Your task to perform on an android device: open app "Google Play Music" Image 0: 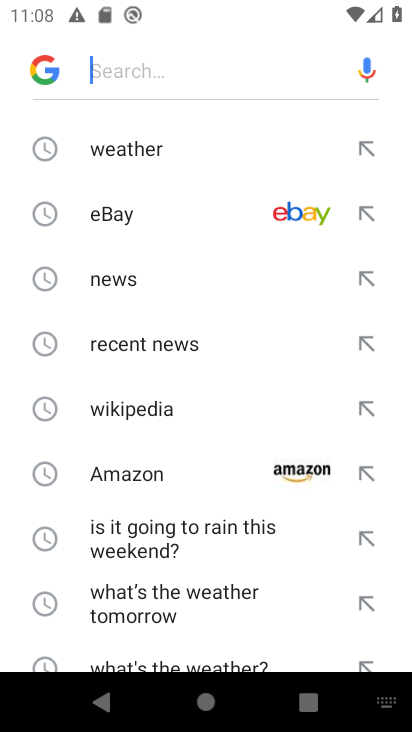
Step 0: press back button
Your task to perform on an android device: open app "Google Play Music" Image 1: 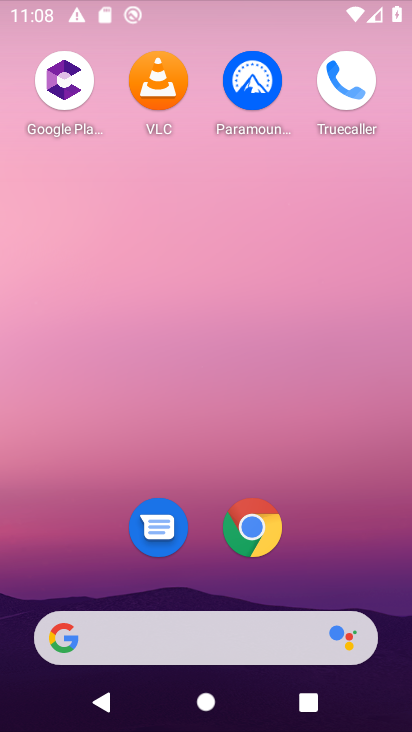
Step 1: drag from (191, 597) to (301, 32)
Your task to perform on an android device: open app "Google Play Music" Image 2: 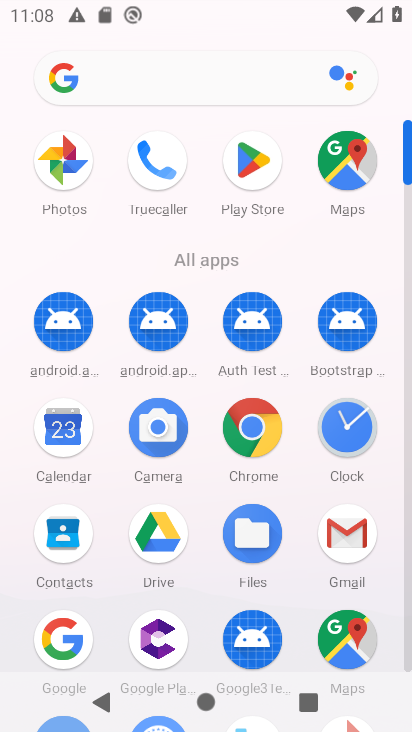
Step 2: click (250, 147)
Your task to perform on an android device: open app "Google Play Music" Image 3: 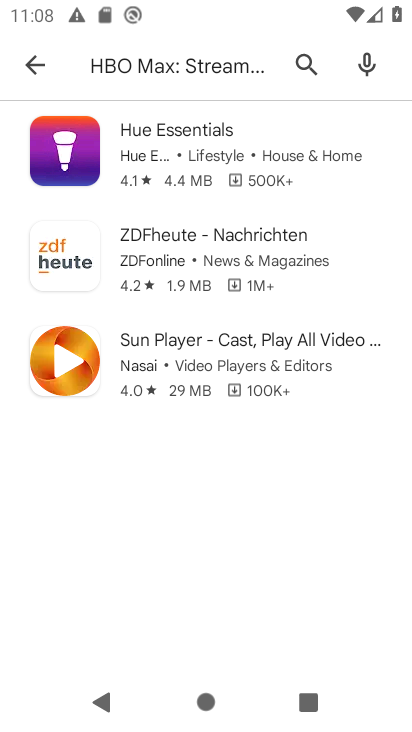
Step 3: click (303, 61)
Your task to perform on an android device: open app "Google Play Music" Image 4: 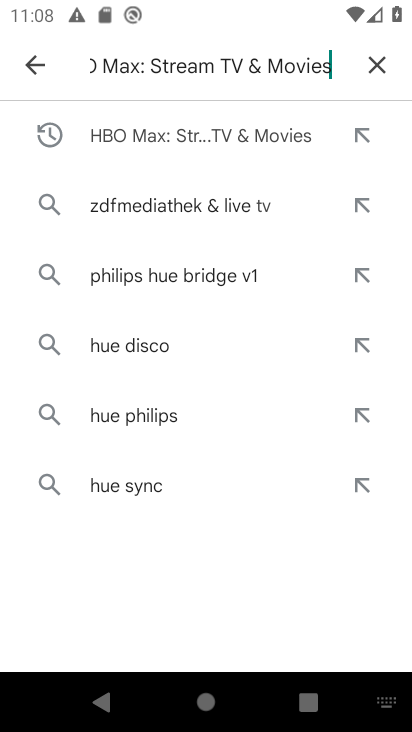
Step 4: click (372, 62)
Your task to perform on an android device: open app "Google Play Music" Image 5: 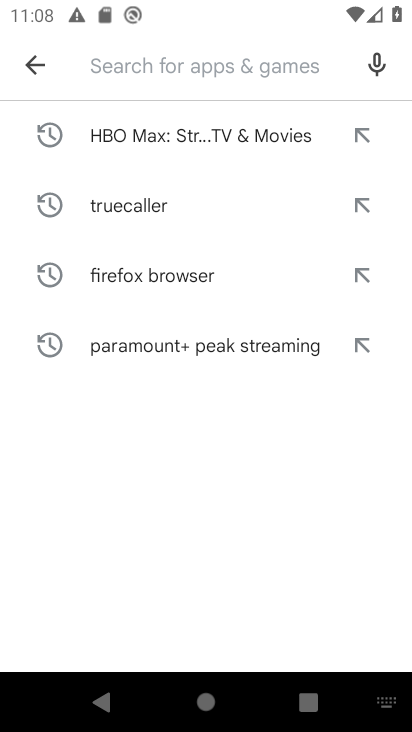
Step 5: click (139, 65)
Your task to perform on an android device: open app "Google Play Music" Image 6: 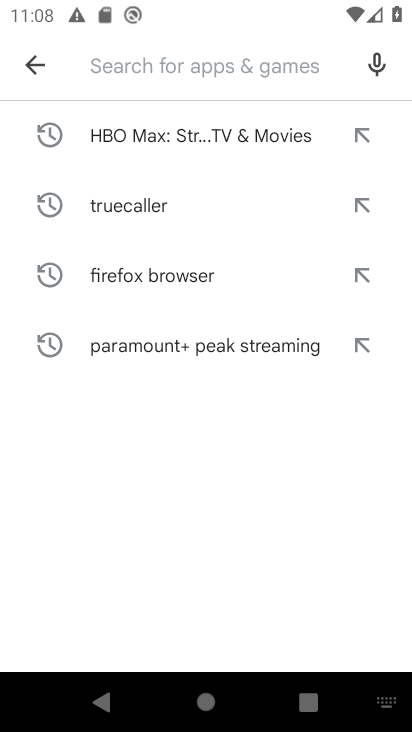
Step 6: type "Google Play Music"
Your task to perform on an android device: open app "Google Play Music" Image 7: 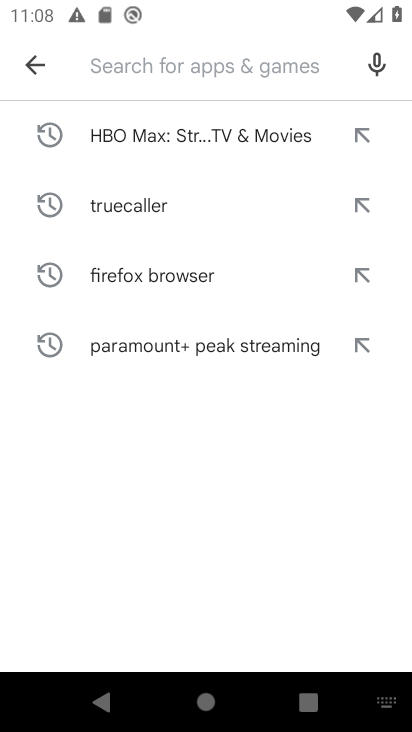
Step 7: click (216, 519)
Your task to perform on an android device: open app "Google Play Music" Image 8: 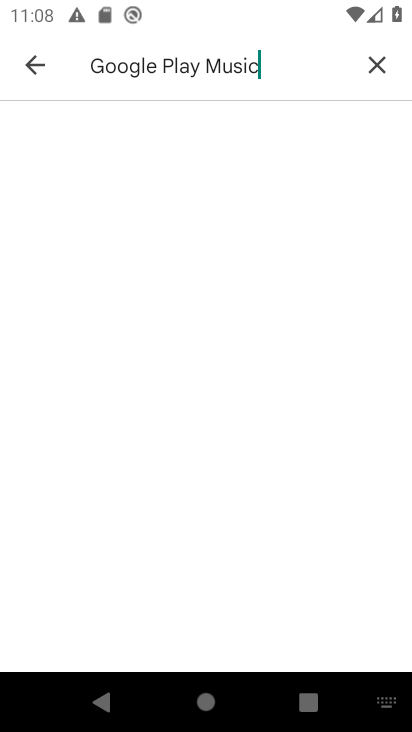
Step 8: task complete